Your task to perform on an android device: empty trash in the gmail app Image 0: 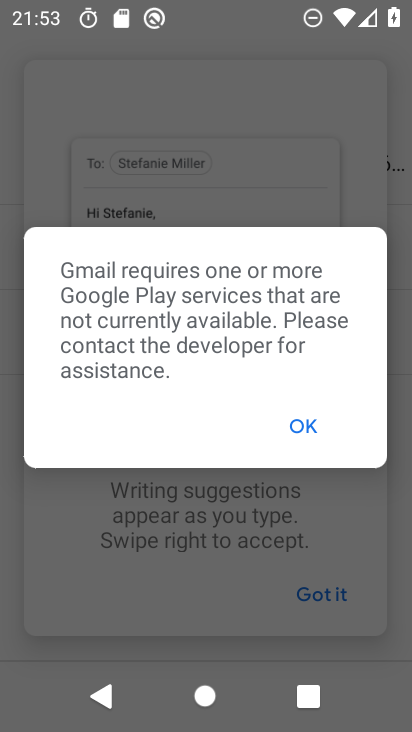
Step 0: press home button
Your task to perform on an android device: empty trash in the gmail app Image 1: 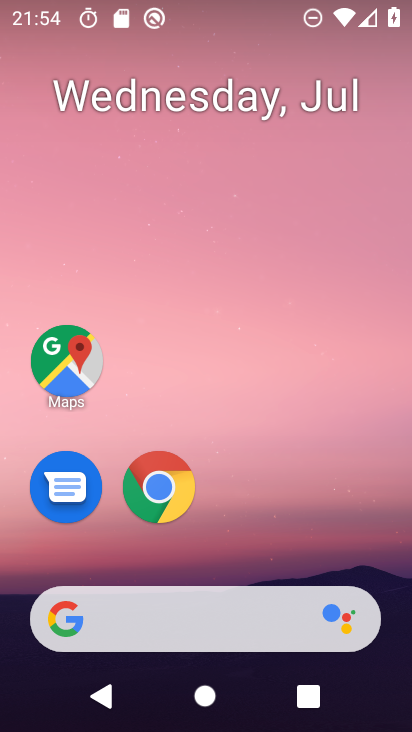
Step 1: drag from (377, 530) to (403, 111)
Your task to perform on an android device: empty trash in the gmail app Image 2: 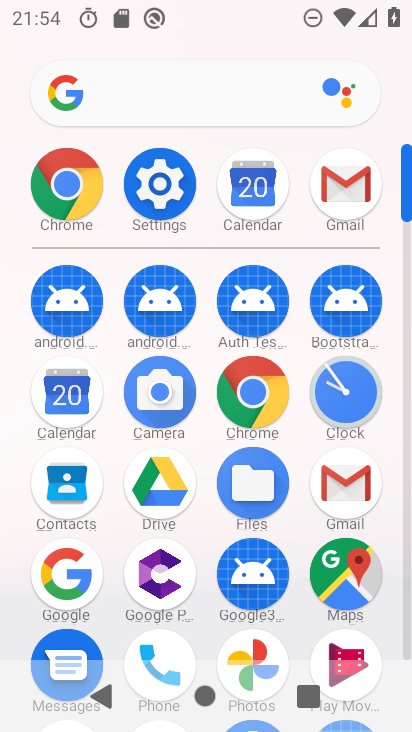
Step 2: click (350, 482)
Your task to perform on an android device: empty trash in the gmail app Image 3: 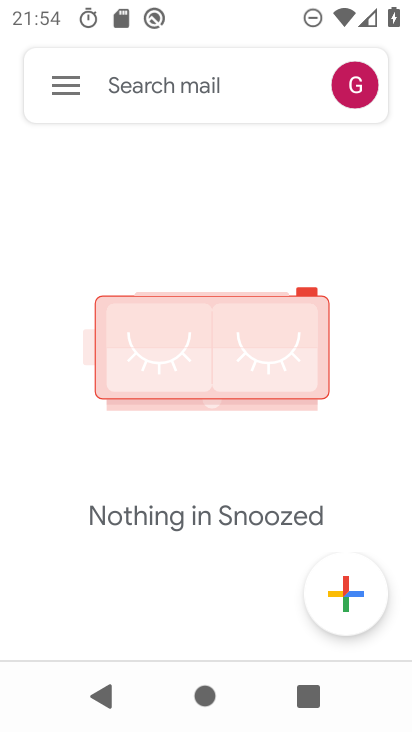
Step 3: click (69, 85)
Your task to perform on an android device: empty trash in the gmail app Image 4: 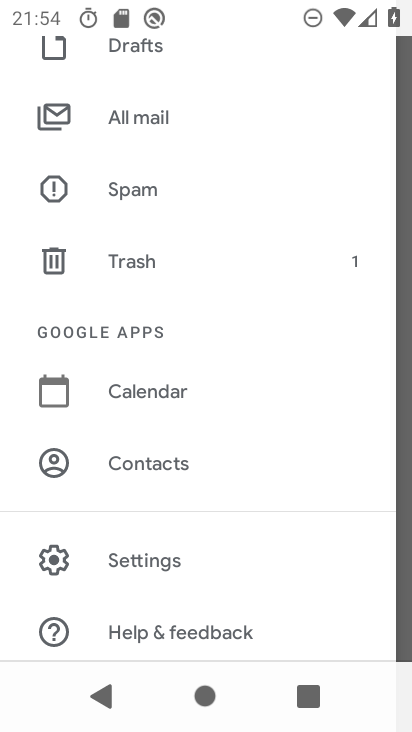
Step 4: drag from (303, 202) to (288, 285)
Your task to perform on an android device: empty trash in the gmail app Image 5: 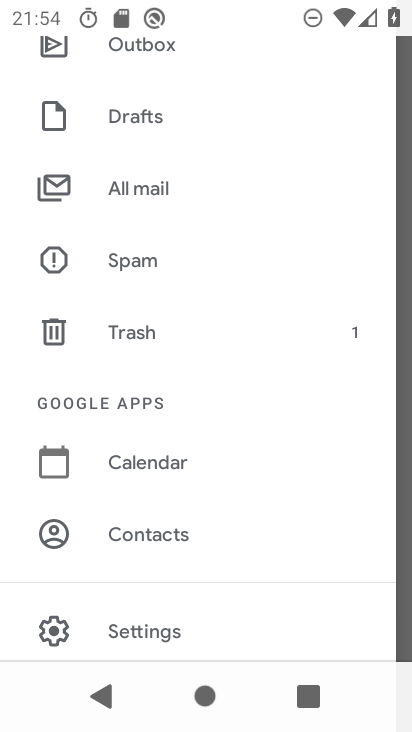
Step 5: drag from (284, 188) to (279, 324)
Your task to perform on an android device: empty trash in the gmail app Image 6: 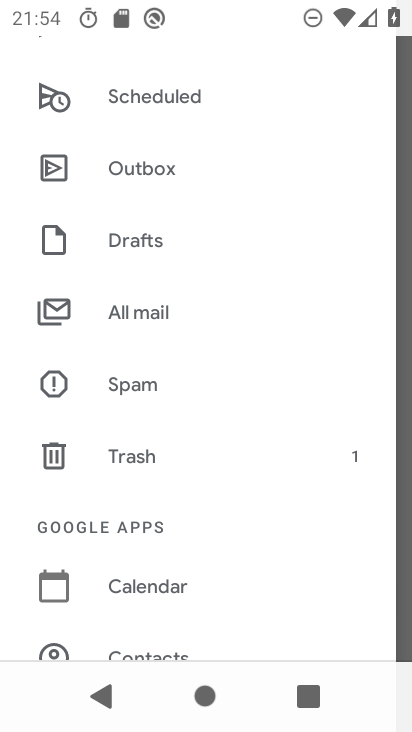
Step 6: drag from (295, 157) to (286, 279)
Your task to perform on an android device: empty trash in the gmail app Image 7: 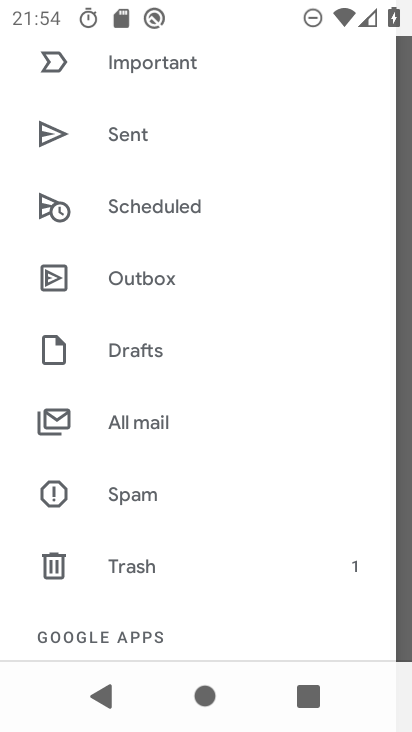
Step 7: click (216, 577)
Your task to perform on an android device: empty trash in the gmail app Image 8: 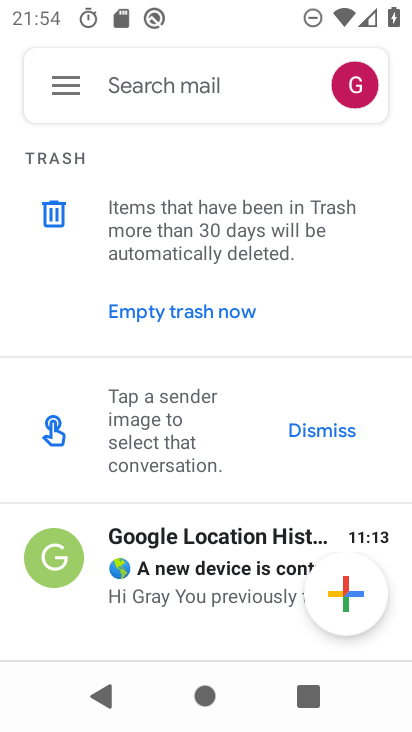
Step 8: click (183, 322)
Your task to perform on an android device: empty trash in the gmail app Image 9: 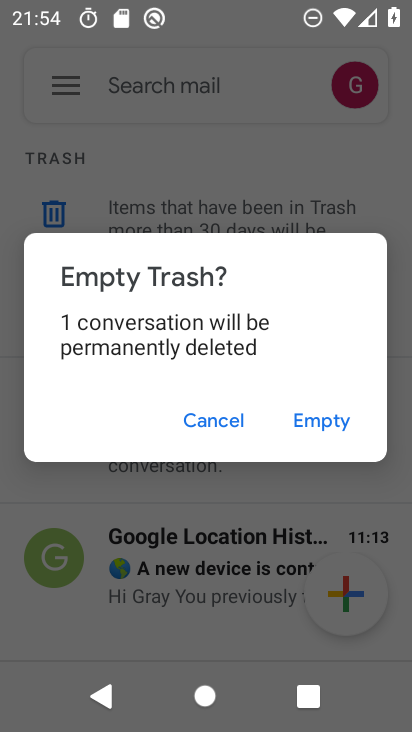
Step 9: click (299, 419)
Your task to perform on an android device: empty trash in the gmail app Image 10: 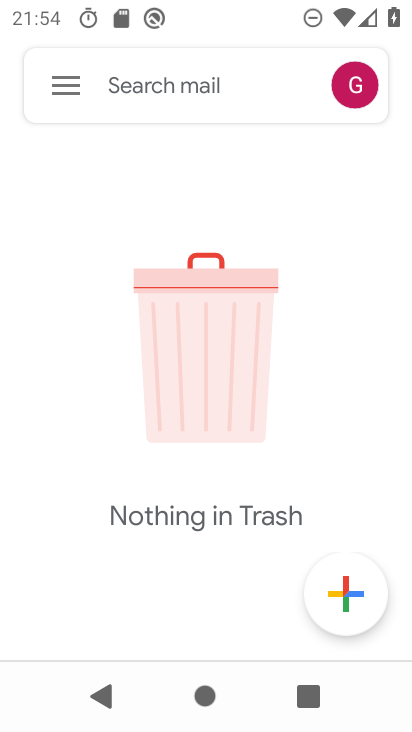
Step 10: task complete